Your task to perform on an android device: Open sound settings Image 0: 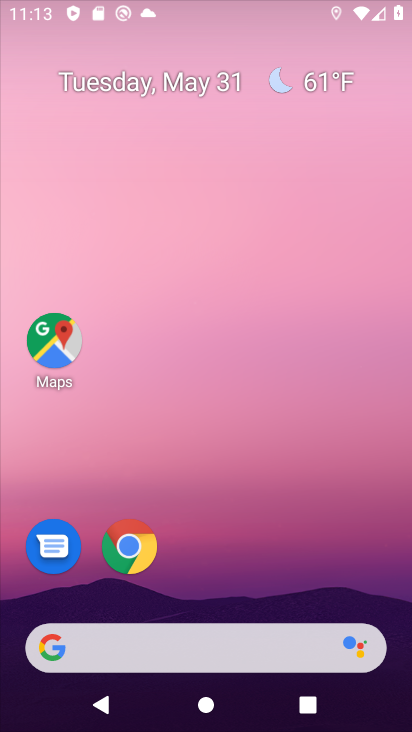
Step 0: drag from (229, 611) to (198, 52)
Your task to perform on an android device: Open sound settings Image 1: 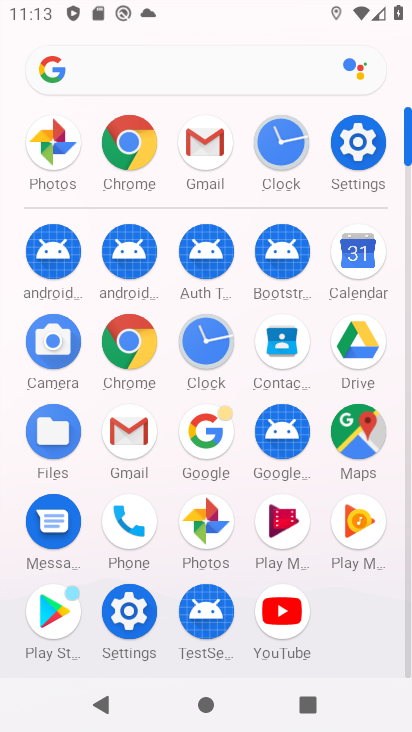
Step 1: click (368, 153)
Your task to perform on an android device: Open sound settings Image 2: 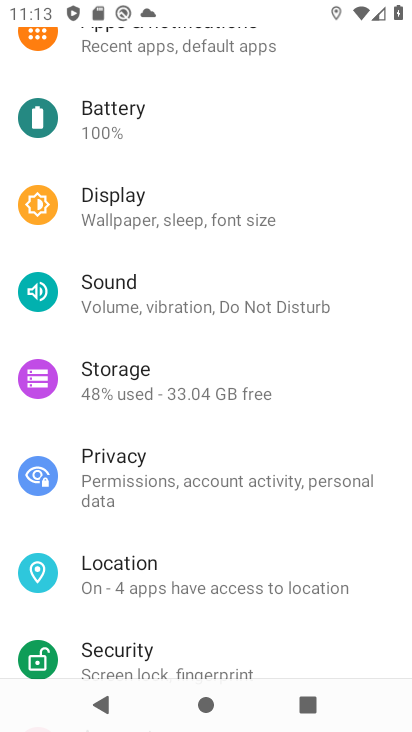
Step 2: click (103, 287)
Your task to perform on an android device: Open sound settings Image 3: 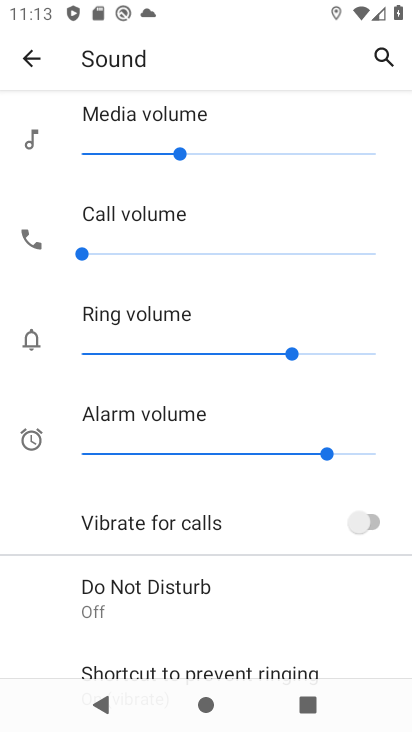
Step 3: task complete